Your task to perform on an android device: turn off picture-in-picture Image 0: 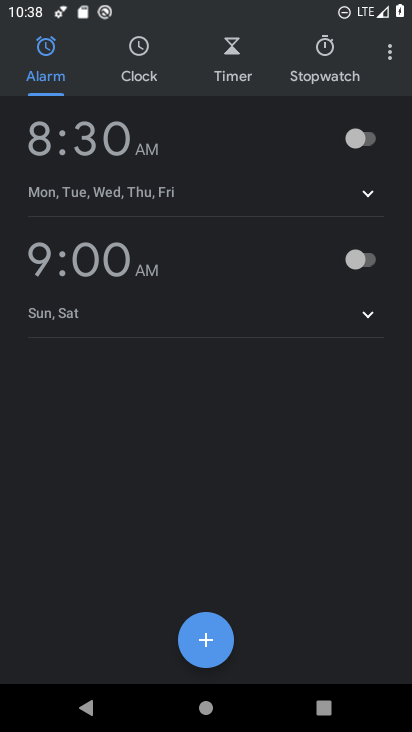
Step 0: press home button
Your task to perform on an android device: turn off picture-in-picture Image 1: 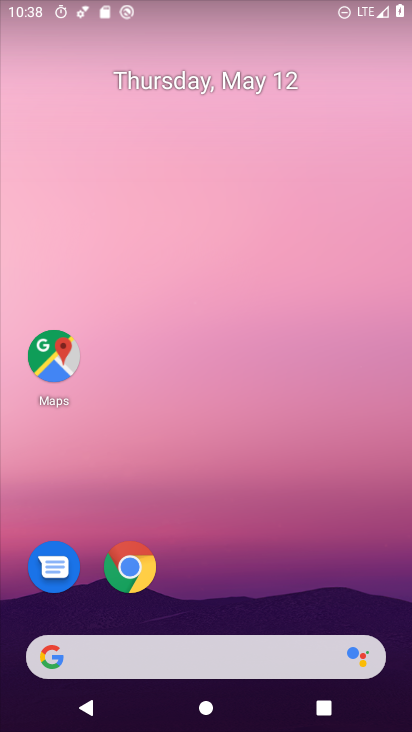
Step 1: drag from (211, 626) to (218, 31)
Your task to perform on an android device: turn off picture-in-picture Image 2: 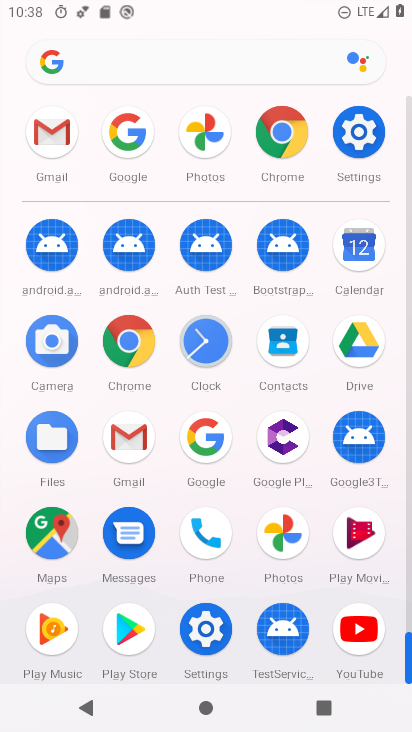
Step 2: click (358, 145)
Your task to perform on an android device: turn off picture-in-picture Image 3: 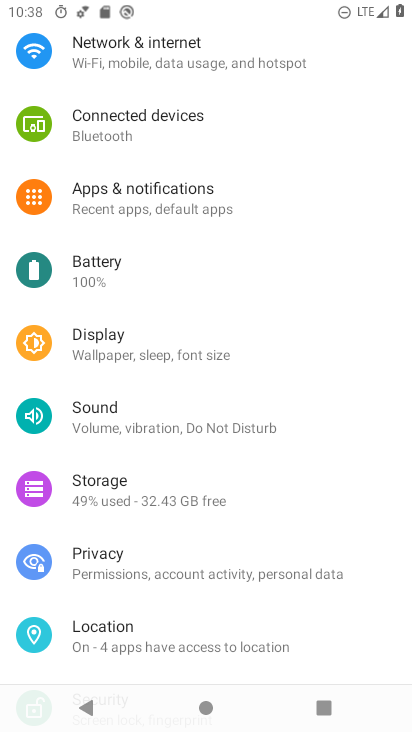
Step 3: click (185, 218)
Your task to perform on an android device: turn off picture-in-picture Image 4: 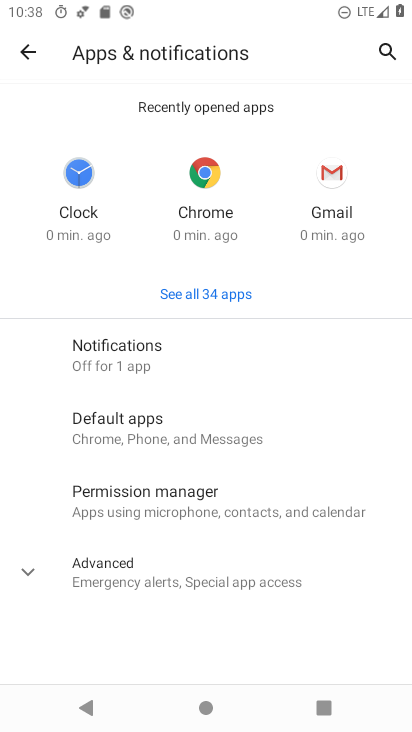
Step 4: click (167, 572)
Your task to perform on an android device: turn off picture-in-picture Image 5: 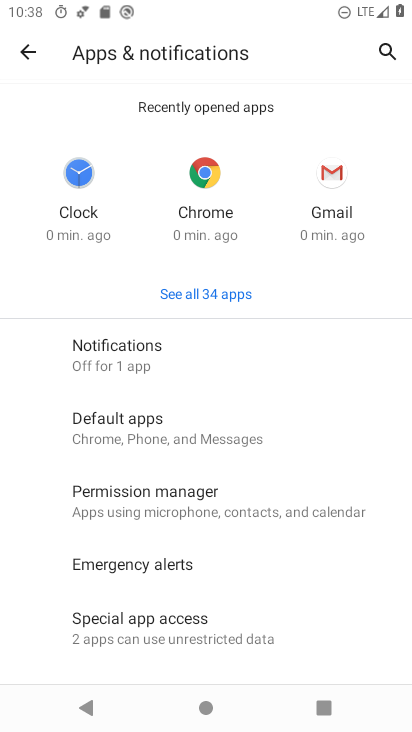
Step 5: click (167, 622)
Your task to perform on an android device: turn off picture-in-picture Image 6: 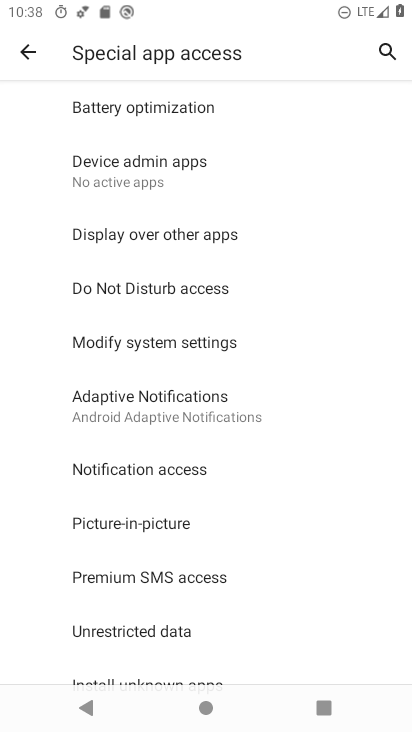
Step 6: click (157, 528)
Your task to perform on an android device: turn off picture-in-picture Image 7: 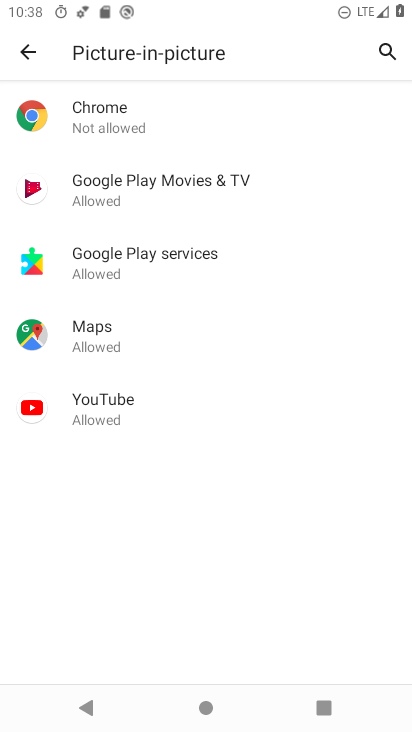
Step 7: click (236, 181)
Your task to perform on an android device: turn off picture-in-picture Image 8: 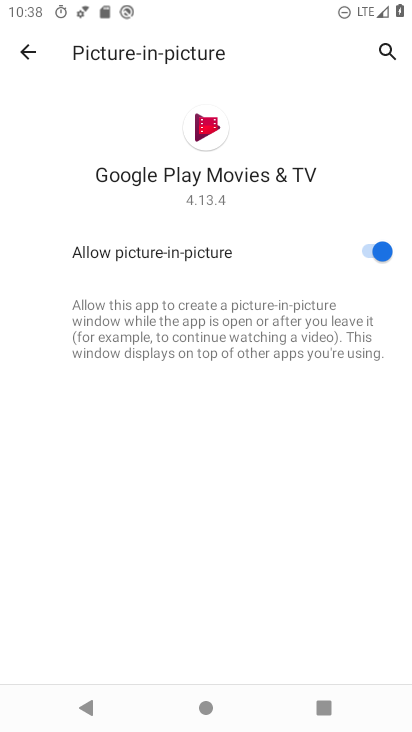
Step 8: click (377, 247)
Your task to perform on an android device: turn off picture-in-picture Image 9: 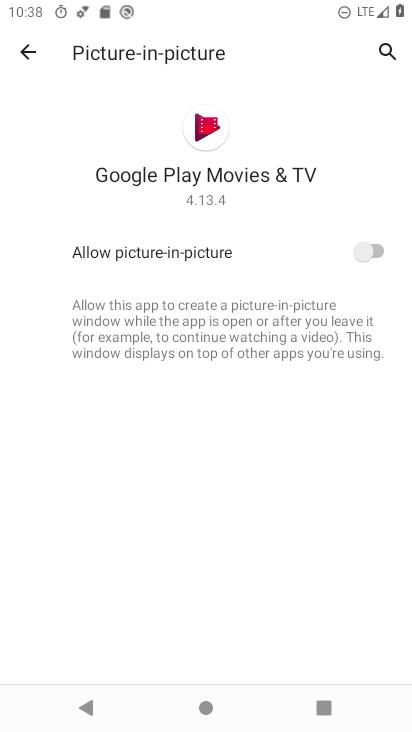
Step 9: task complete